Your task to perform on an android device: Open the Play Movies app and select the watchlist tab. Image 0: 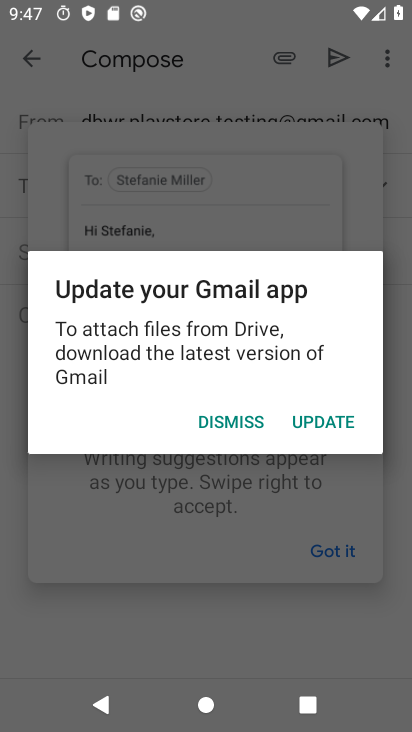
Step 0: press home button
Your task to perform on an android device: Open the Play Movies app and select the watchlist tab. Image 1: 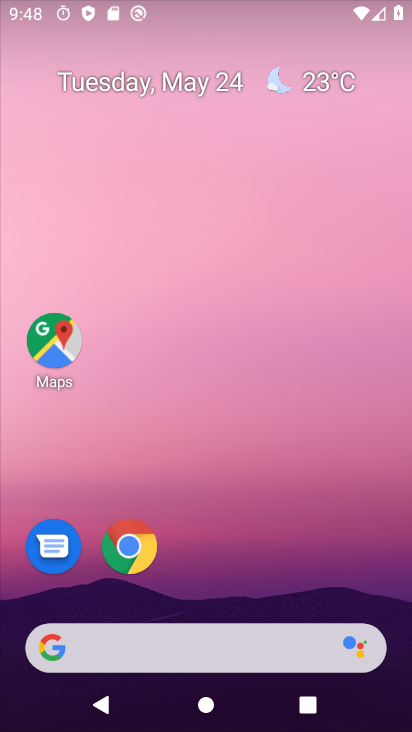
Step 1: drag from (281, 548) to (318, 81)
Your task to perform on an android device: Open the Play Movies app and select the watchlist tab. Image 2: 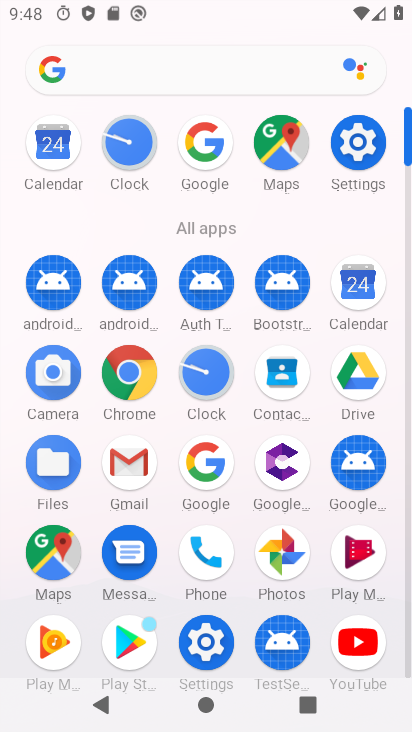
Step 2: click (360, 553)
Your task to perform on an android device: Open the Play Movies app and select the watchlist tab. Image 3: 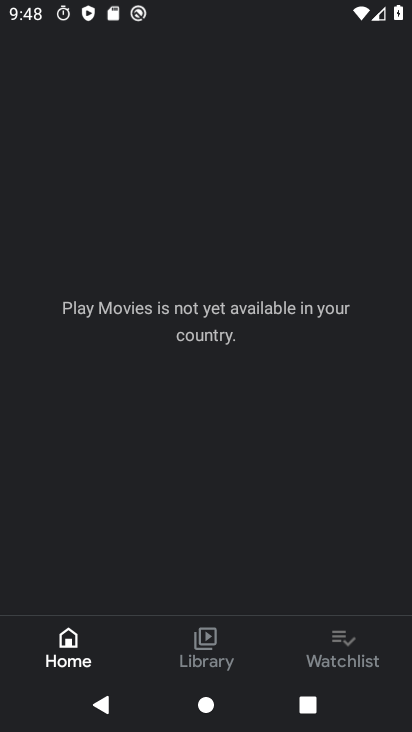
Step 3: click (345, 655)
Your task to perform on an android device: Open the Play Movies app and select the watchlist tab. Image 4: 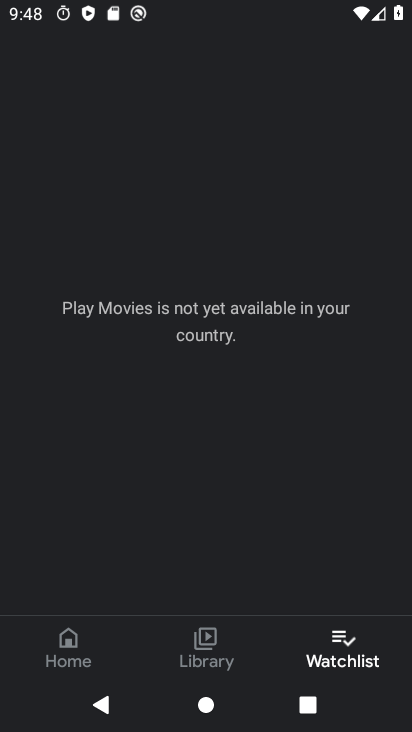
Step 4: task complete